Your task to perform on an android device: Google the capital of Peru Image 0: 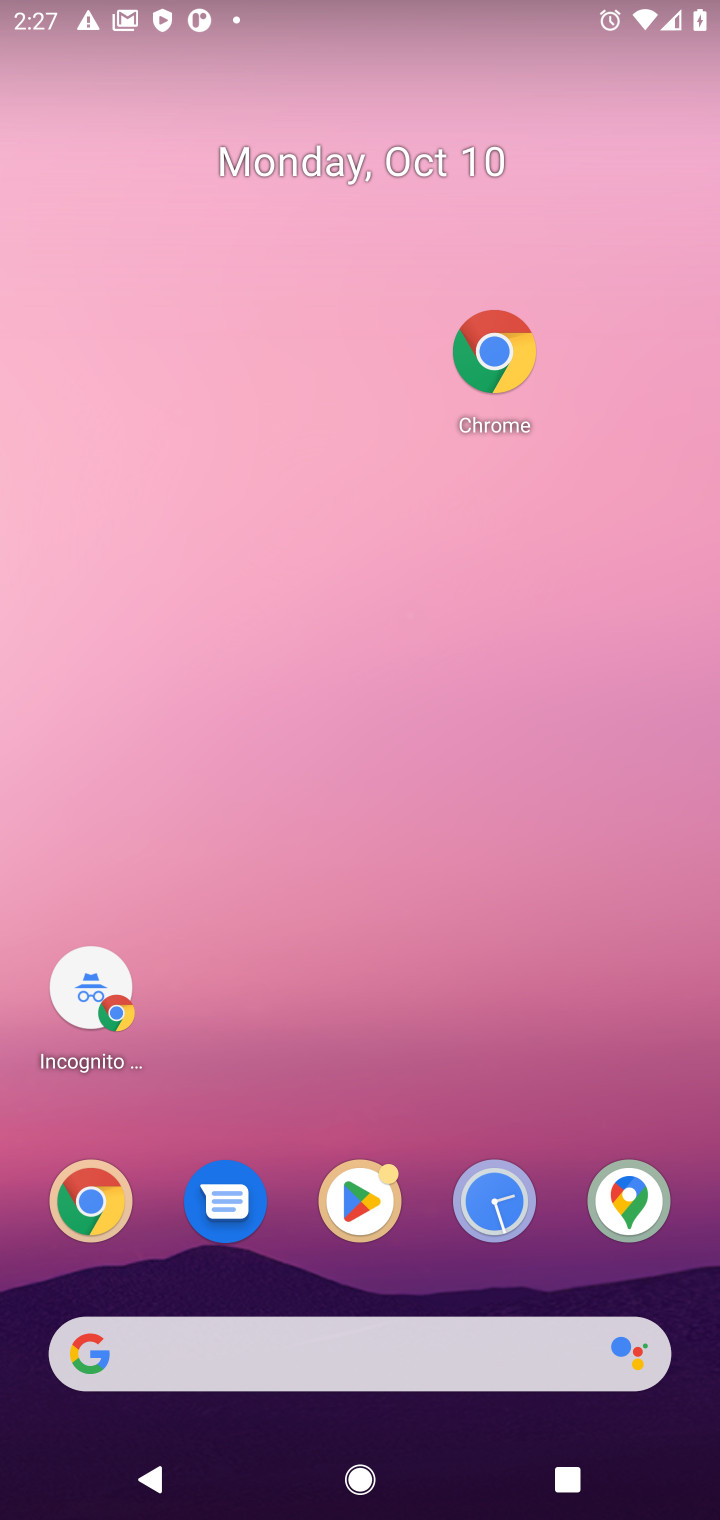
Step 0: click (495, 358)
Your task to perform on an android device: Google the capital of Peru Image 1: 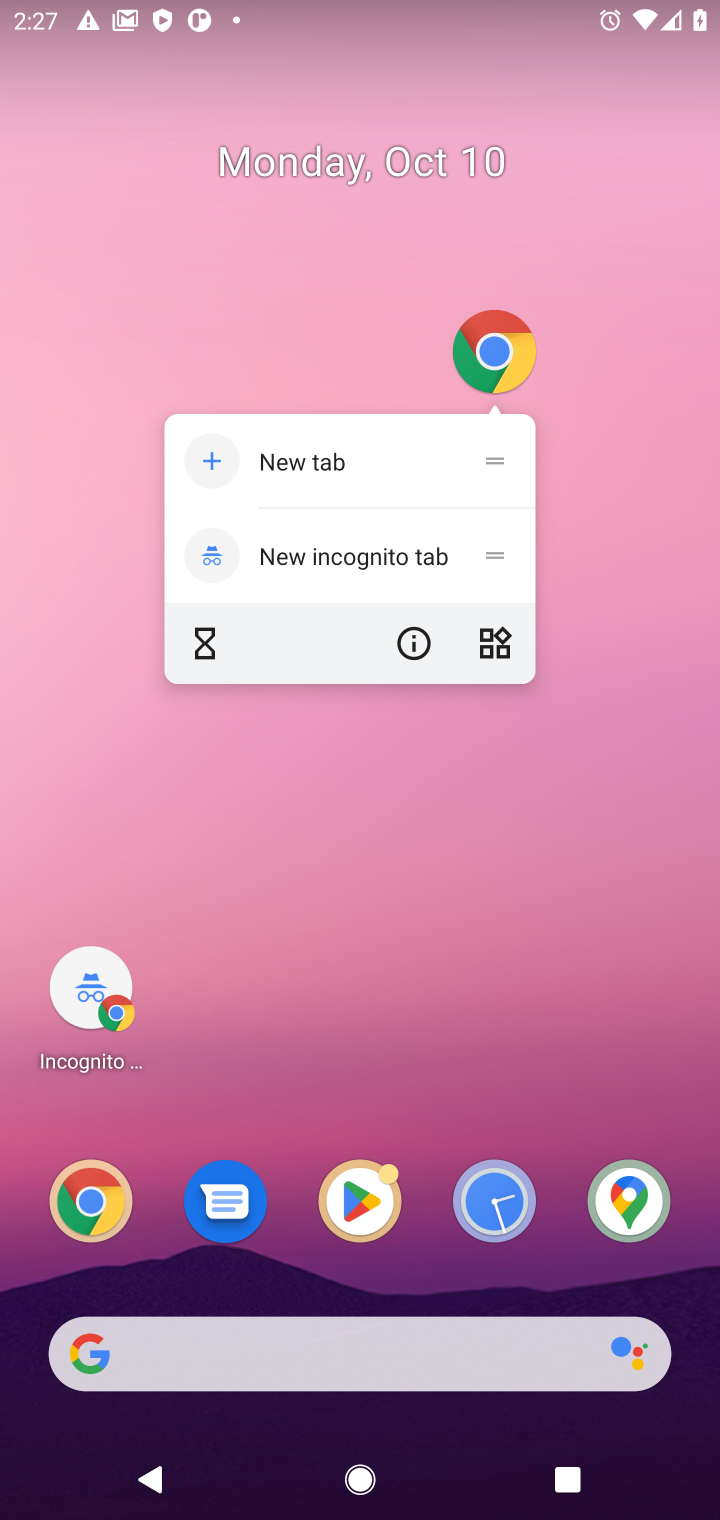
Step 1: click (495, 358)
Your task to perform on an android device: Google the capital of Peru Image 2: 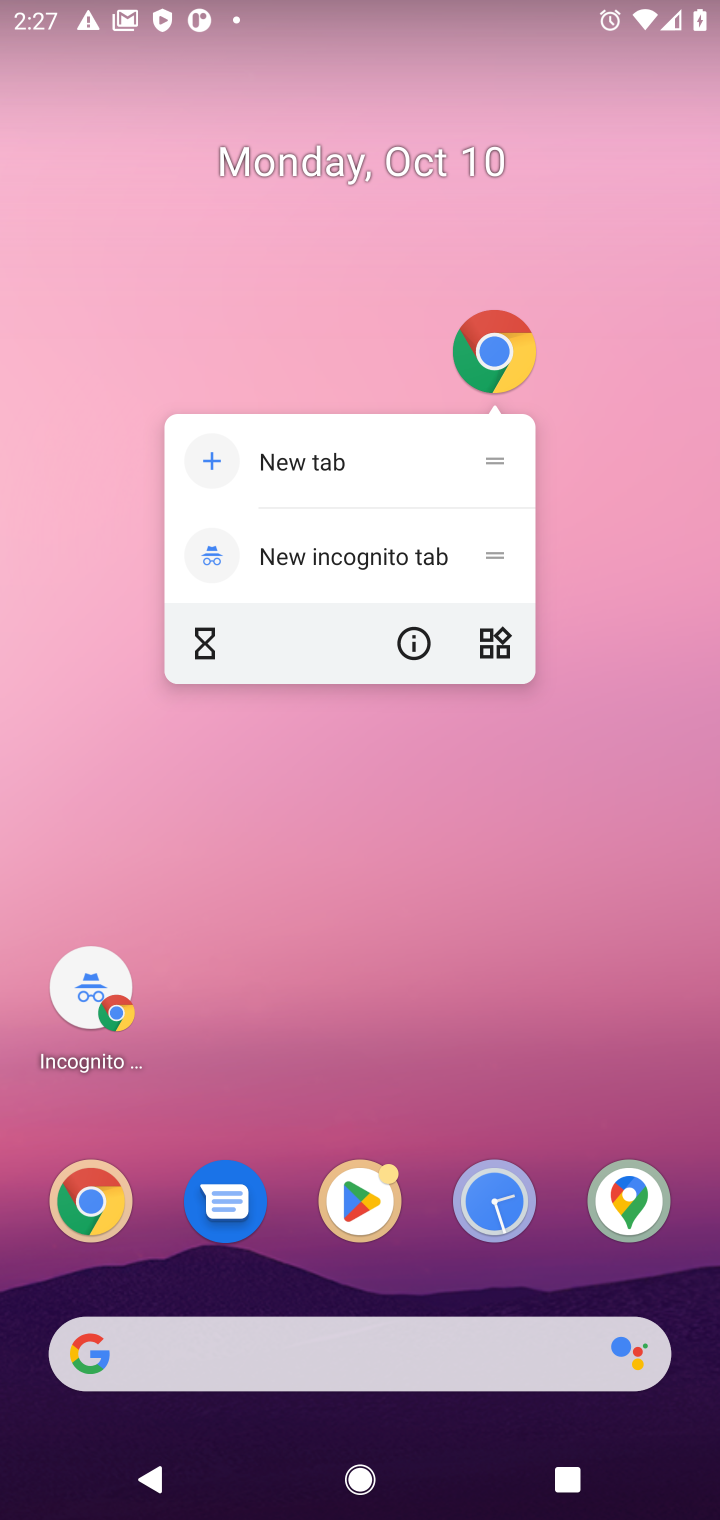
Step 2: click (495, 358)
Your task to perform on an android device: Google the capital of Peru Image 3: 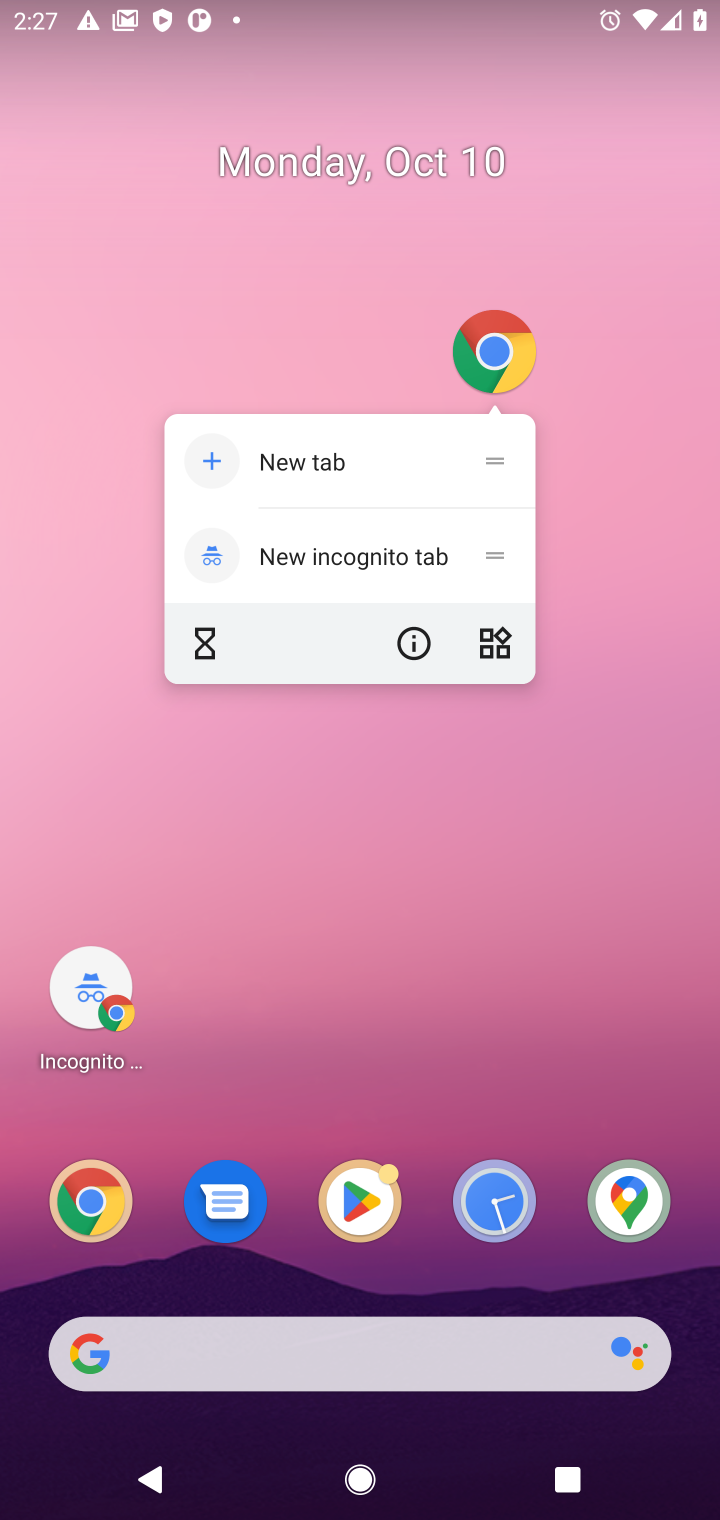
Step 3: click (495, 356)
Your task to perform on an android device: Google the capital of Peru Image 4: 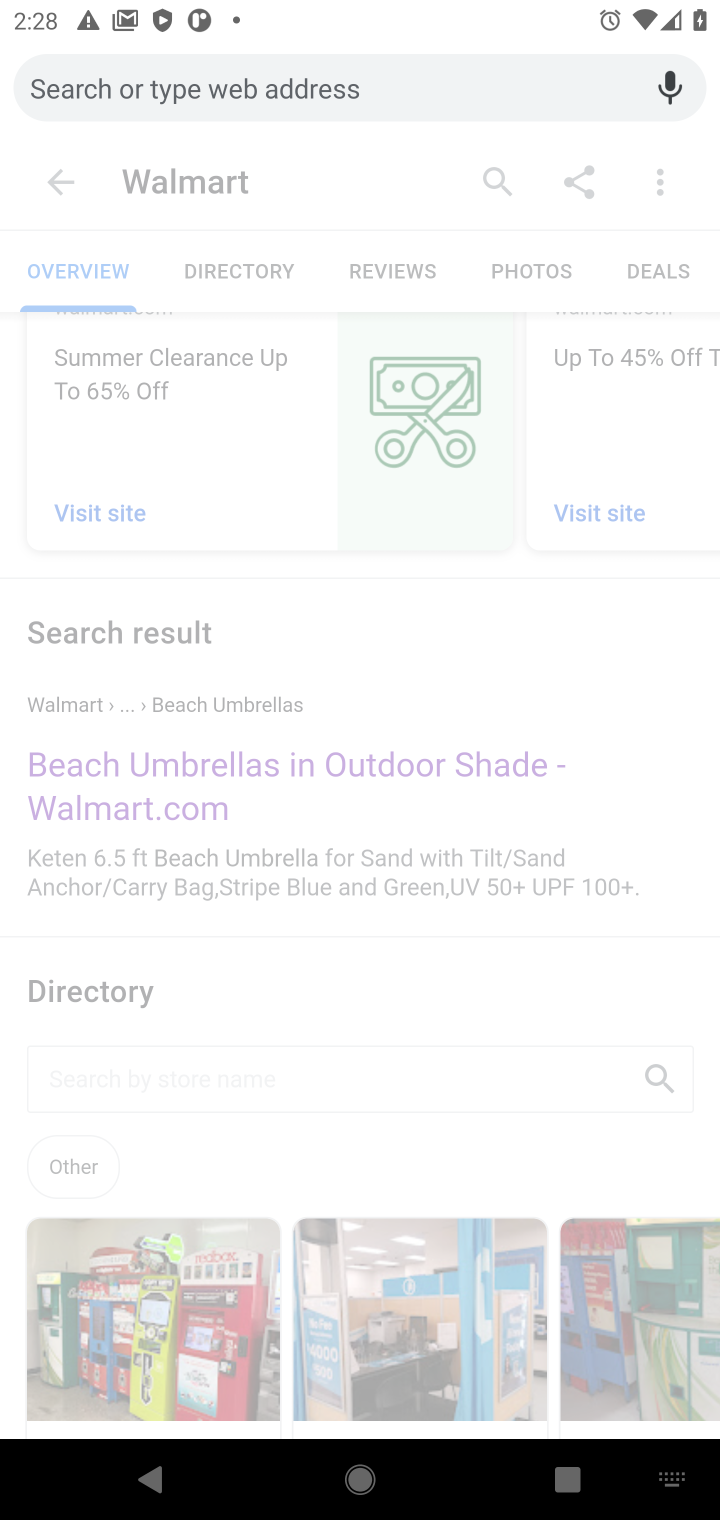
Step 4: type "capital of peru"
Your task to perform on an android device: Google the capital of Peru Image 5: 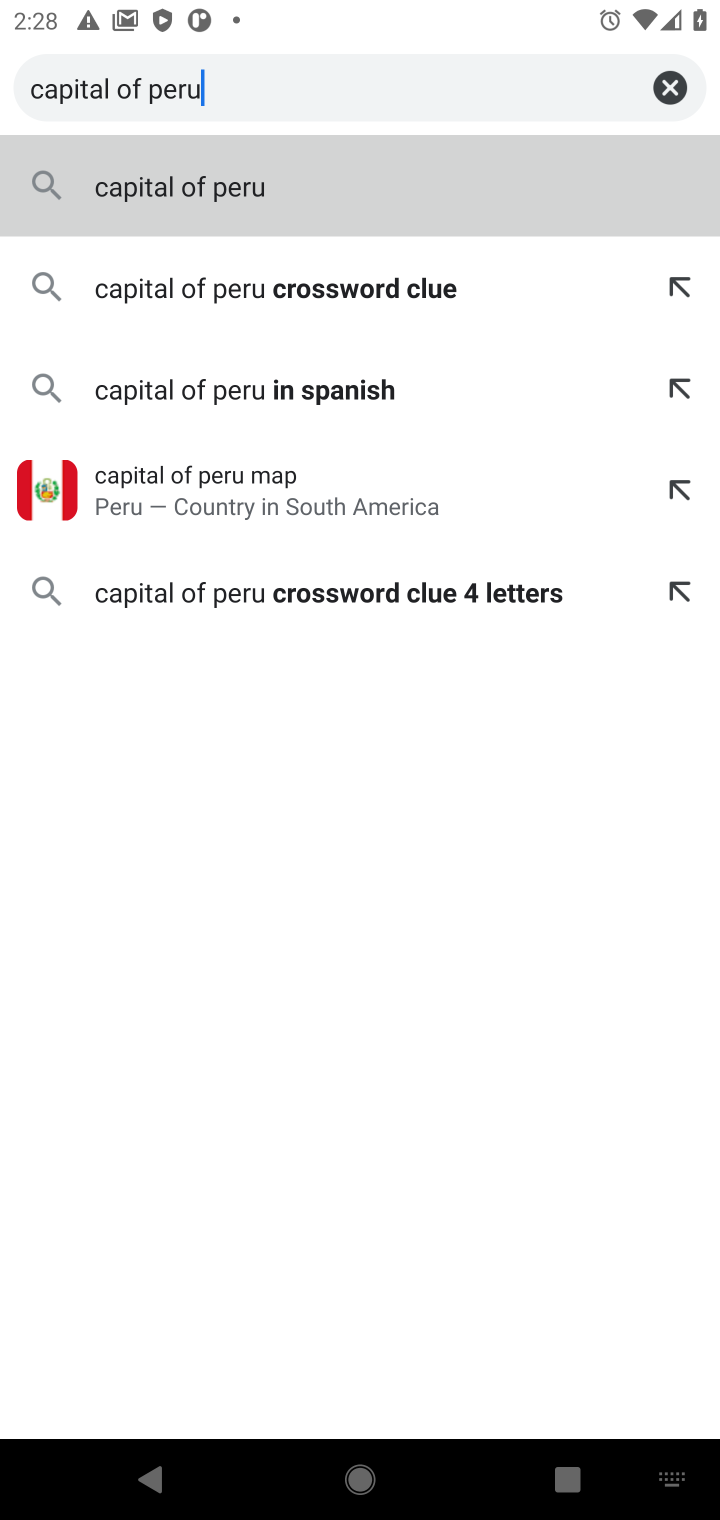
Step 5: click (177, 202)
Your task to perform on an android device: Google the capital of Peru Image 6: 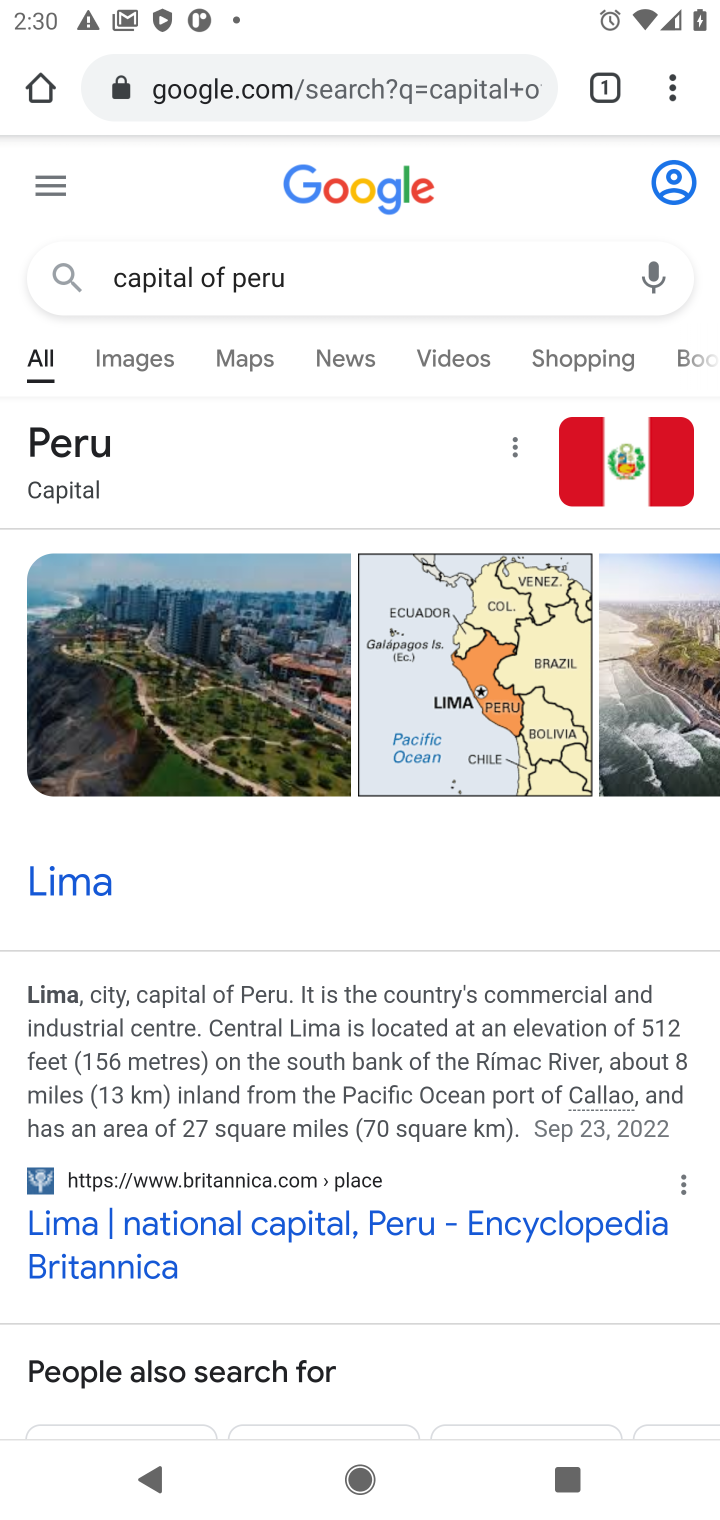
Step 6: click (86, 876)
Your task to perform on an android device: Google the capital of Peru Image 7: 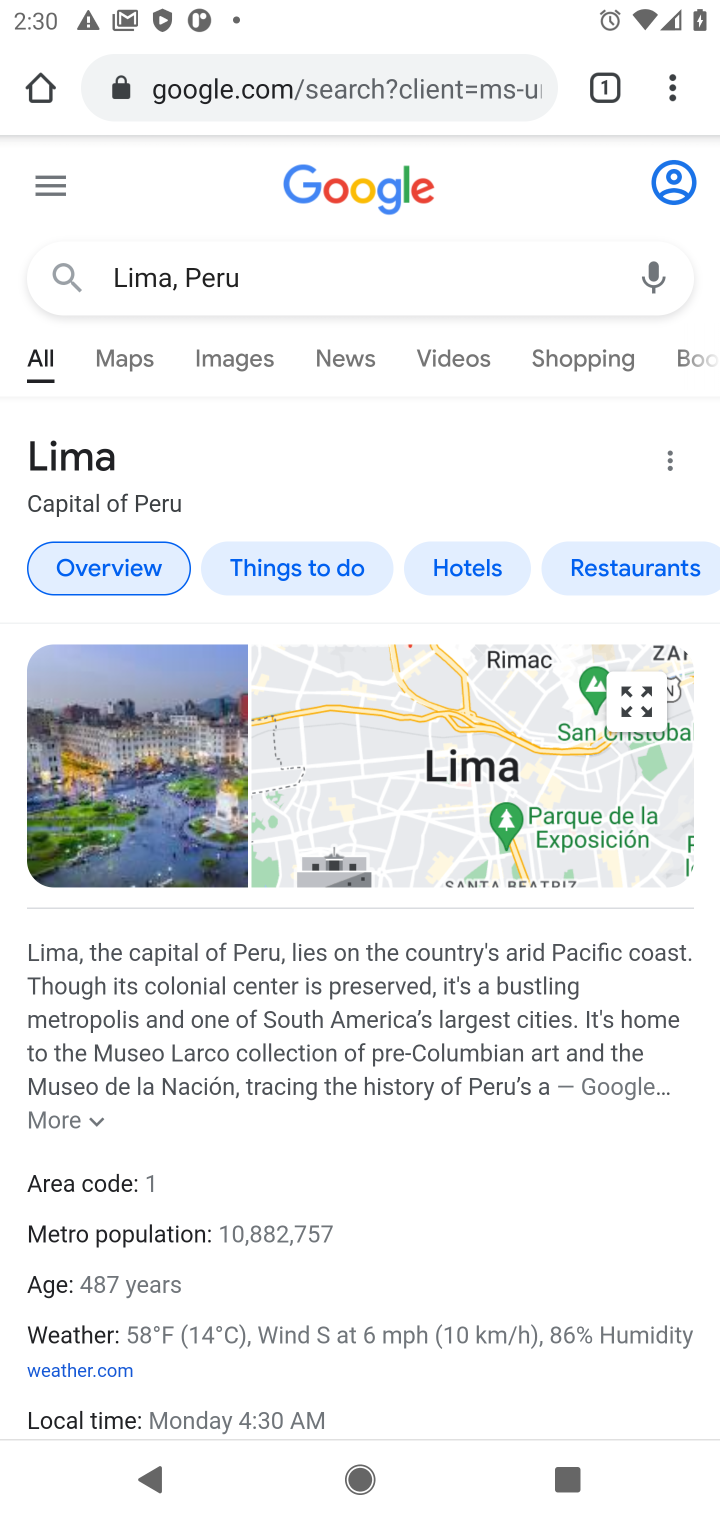
Step 7: task complete